Your task to perform on an android device: Open wifi settings Image 0: 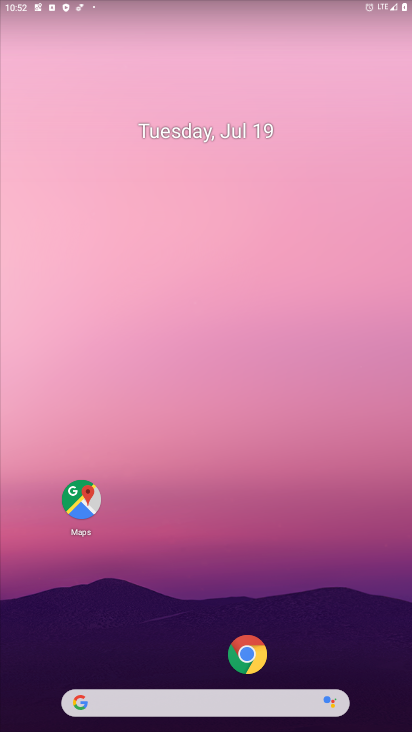
Step 0: drag from (107, 14) to (62, 284)
Your task to perform on an android device: Open wifi settings Image 1: 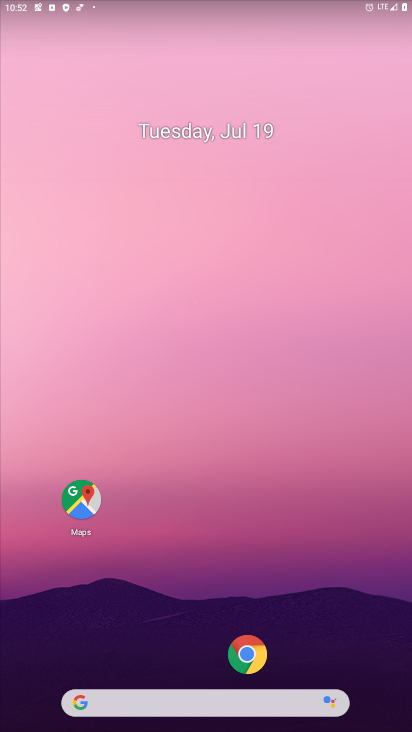
Step 1: drag from (121, 2) to (120, 504)
Your task to perform on an android device: Open wifi settings Image 2: 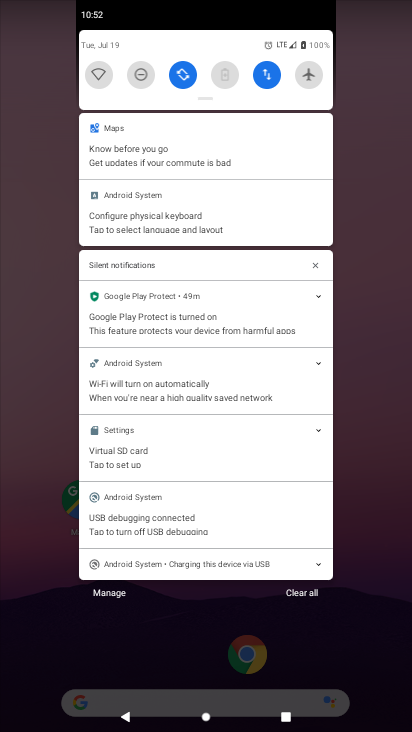
Step 2: click (108, 81)
Your task to perform on an android device: Open wifi settings Image 3: 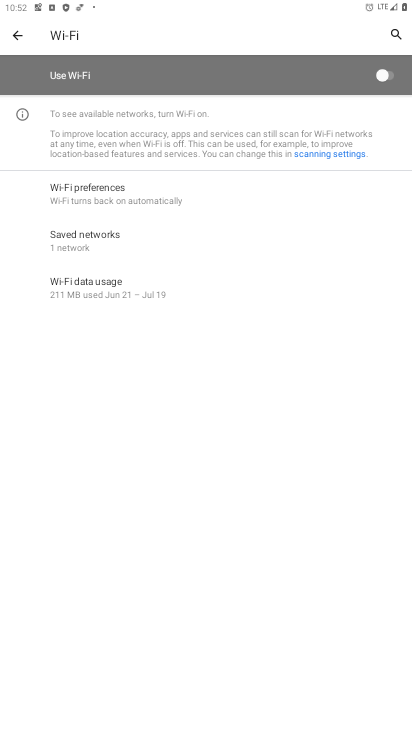
Step 3: task complete